Your task to perform on an android device: change notifications settings Image 0: 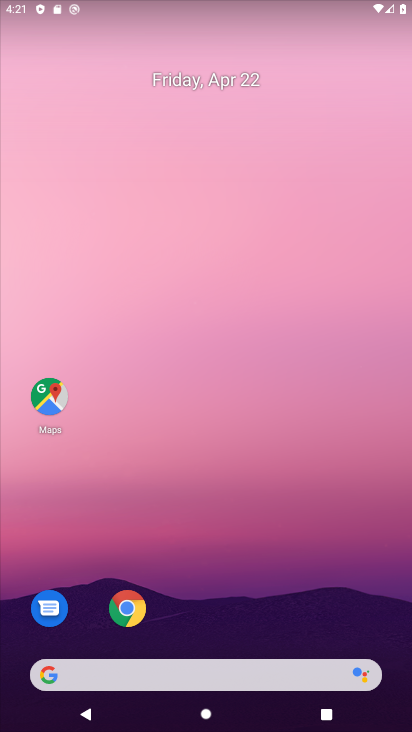
Step 0: drag from (204, 589) to (238, 163)
Your task to perform on an android device: change notifications settings Image 1: 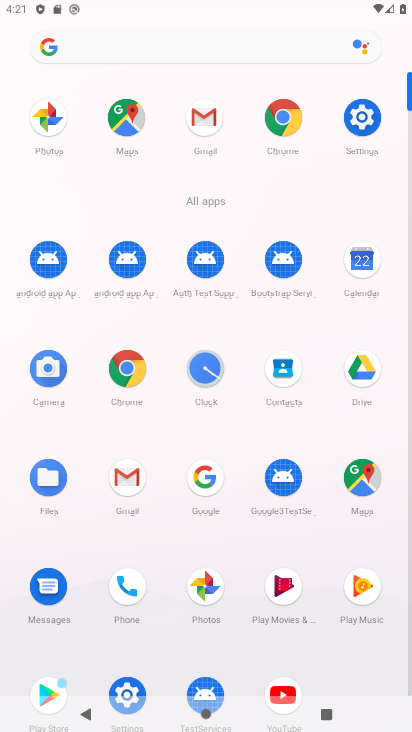
Step 1: click (369, 131)
Your task to perform on an android device: change notifications settings Image 2: 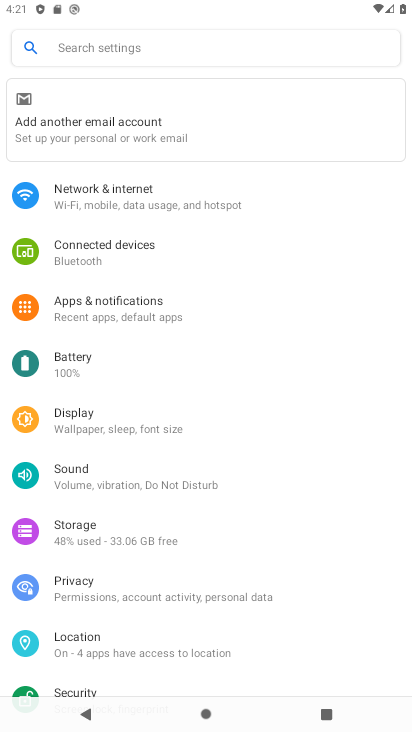
Step 2: click (141, 309)
Your task to perform on an android device: change notifications settings Image 3: 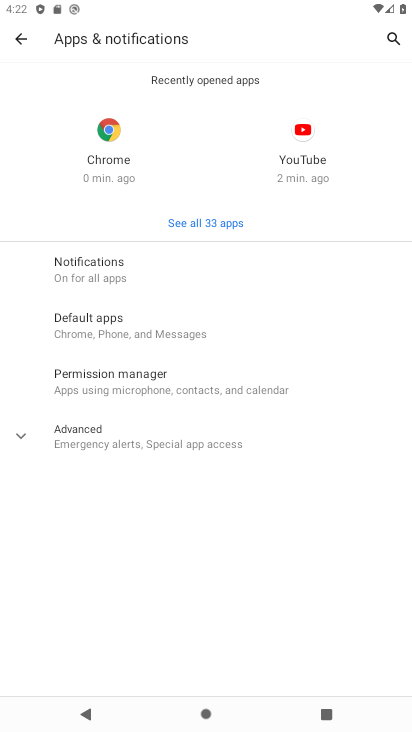
Step 3: click (157, 284)
Your task to perform on an android device: change notifications settings Image 4: 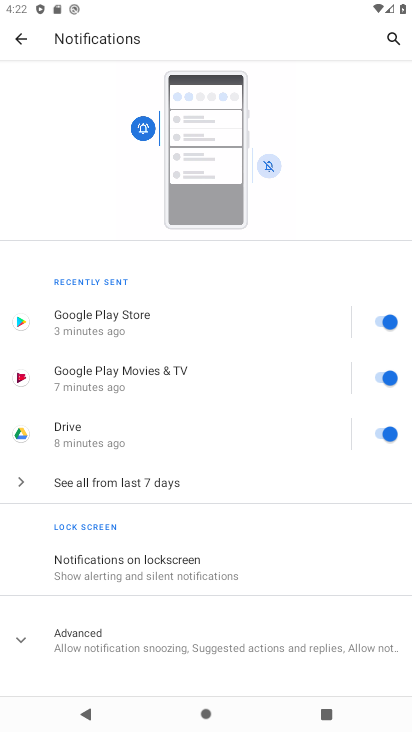
Step 4: click (379, 327)
Your task to perform on an android device: change notifications settings Image 5: 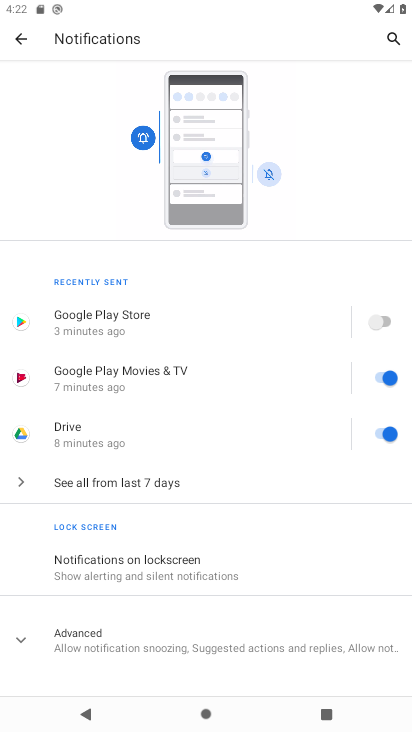
Step 5: task complete